Your task to perform on an android device: turn on notifications settings in the gmail app Image 0: 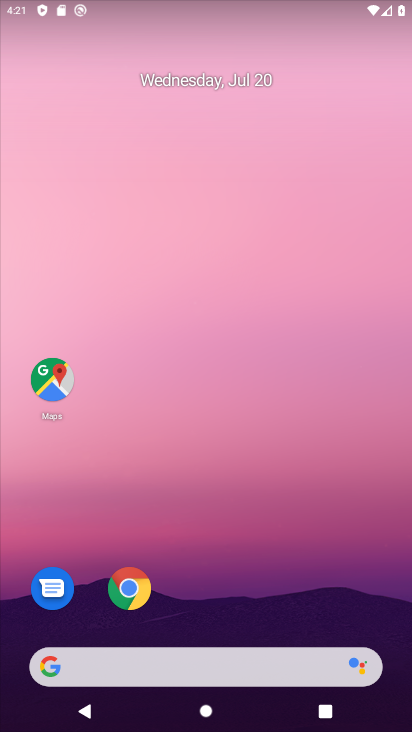
Step 0: drag from (202, 622) to (241, 38)
Your task to perform on an android device: turn on notifications settings in the gmail app Image 1: 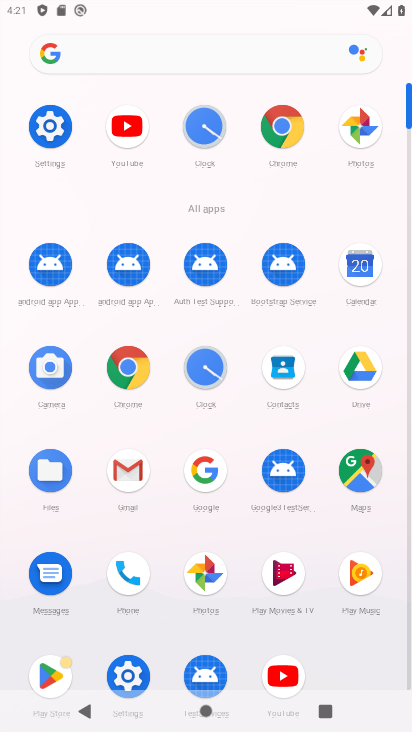
Step 1: click (124, 464)
Your task to perform on an android device: turn on notifications settings in the gmail app Image 2: 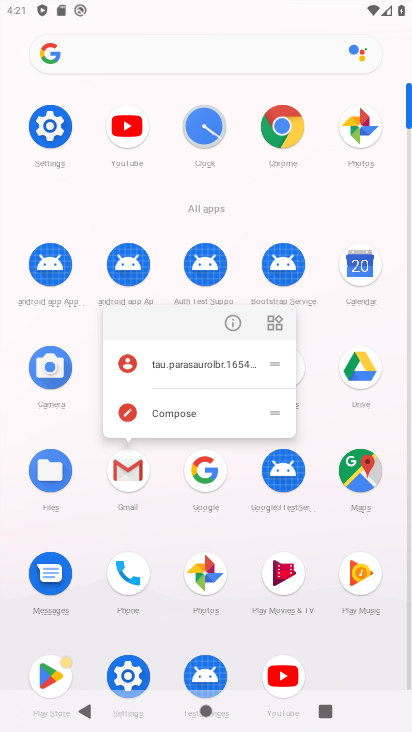
Step 2: click (124, 469)
Your task to perform on an android device: turn on notifications settings in the gmail app Image 3: 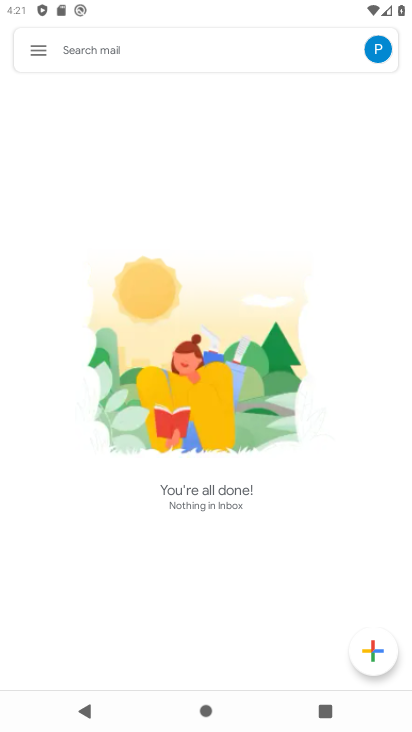
Step 3: click (39, 48)
Your task to perform on an android device: turn on notifications settings in the gmail app Image 4: 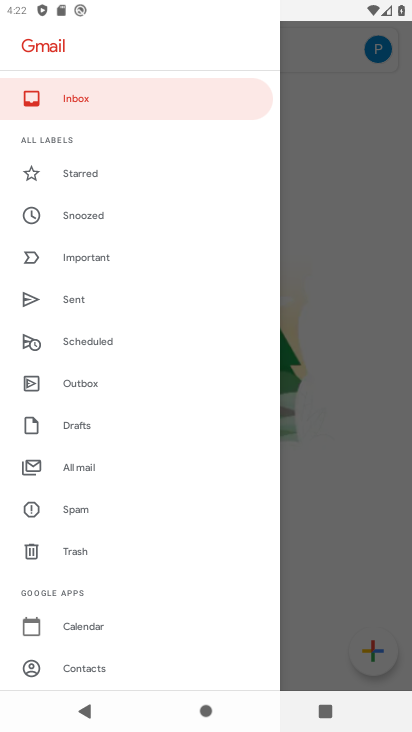
Step 4: drag from (120, 628) to (175, 7)
Your task to perform on an android device: turn on notifications settings in the gmail app Image 5: 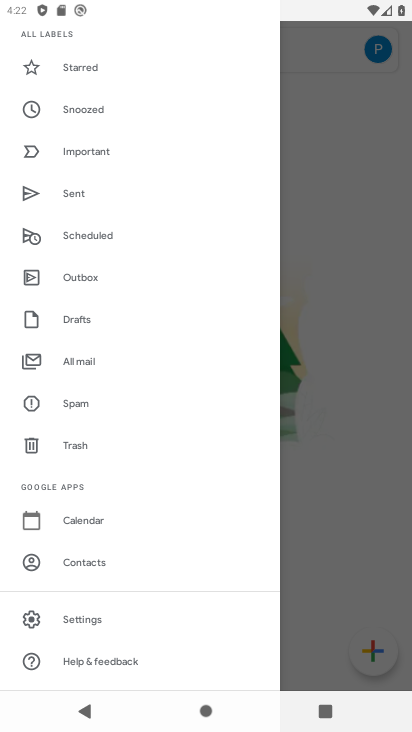
Step 5: click (92, 604)
Your task to perform on an android device: turn on notifications settings in the gmail app Image 6: 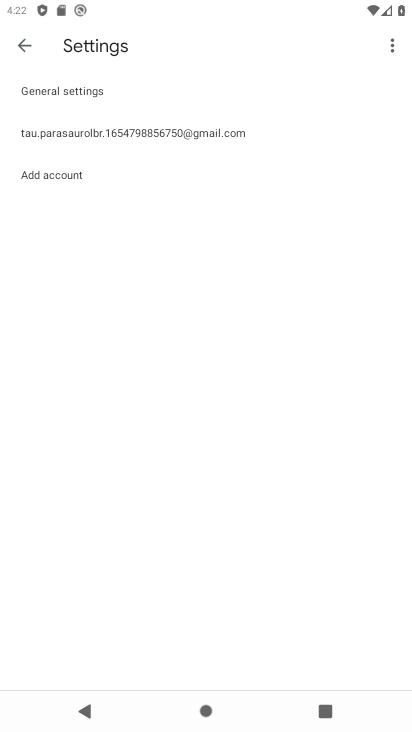
Step 6: click (103, 83)
Your task to perform on an android device: turn on notifications settings in the gmail app Image 7: 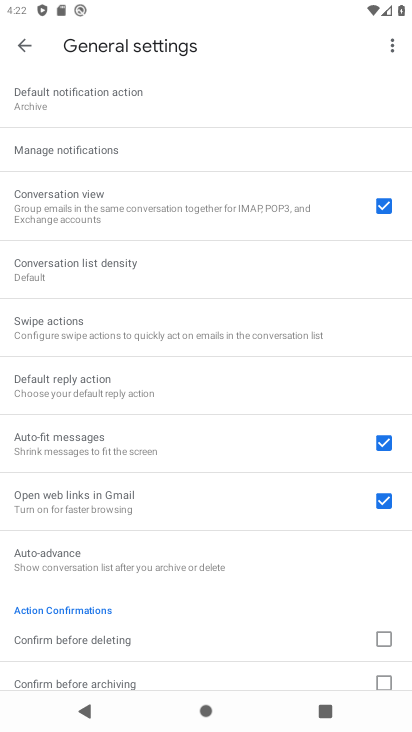
Step 7: click (116, 148)
Your task to perform on an android device: turn on notifications settings in the gmail app Image 8: 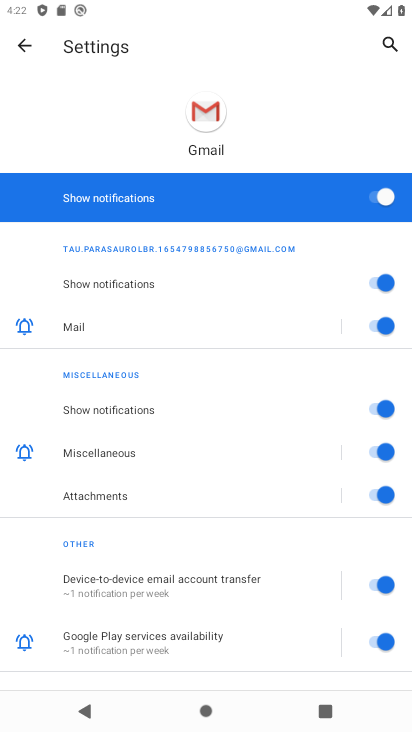
Step 8: task complete